Your task to perform on an android device: What is the recent news? Image 0: 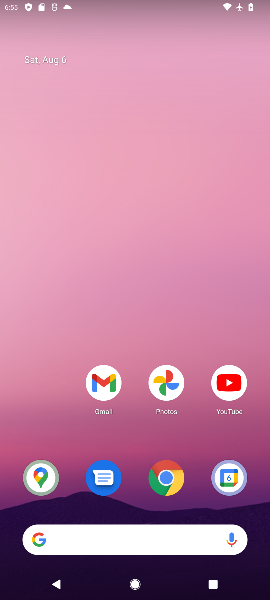
Step 0: press home button
Your task to perform on an android device: What is the recent news? Image 1: 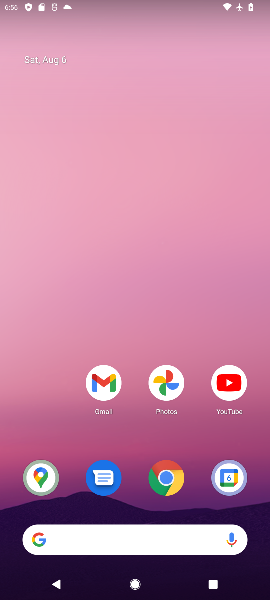
Step 1: press home button
Your task to perform on an android device: What is the recent news? Image 2: 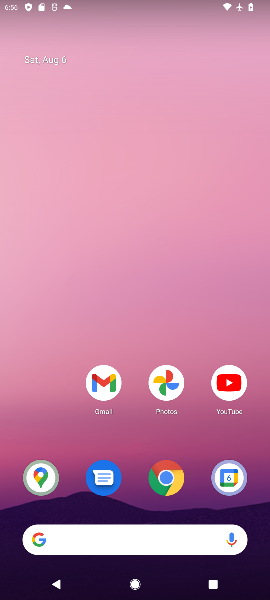
Step 2: click (35, 545)
Your task to perform on an android device: What is the recent news? Image 3: 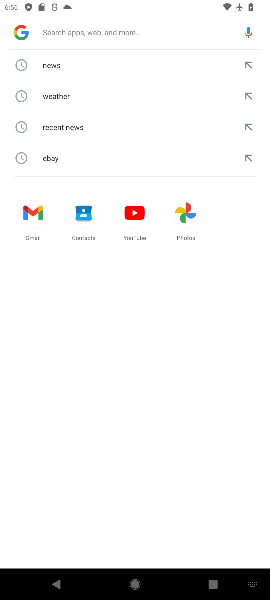
Step 3: click (74, 128)
Your task to perform on an android device: What is the recent news? Image 4: 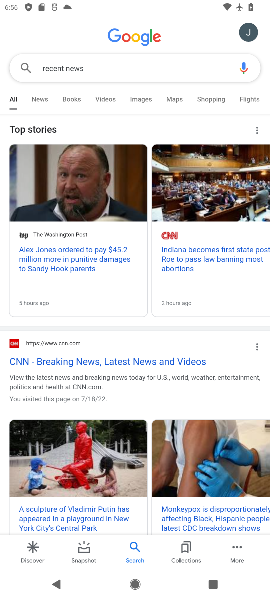
Step 4: task complete